Your task to perform on an android device: Play the new Taylor Swift video on YouTube Image 0: 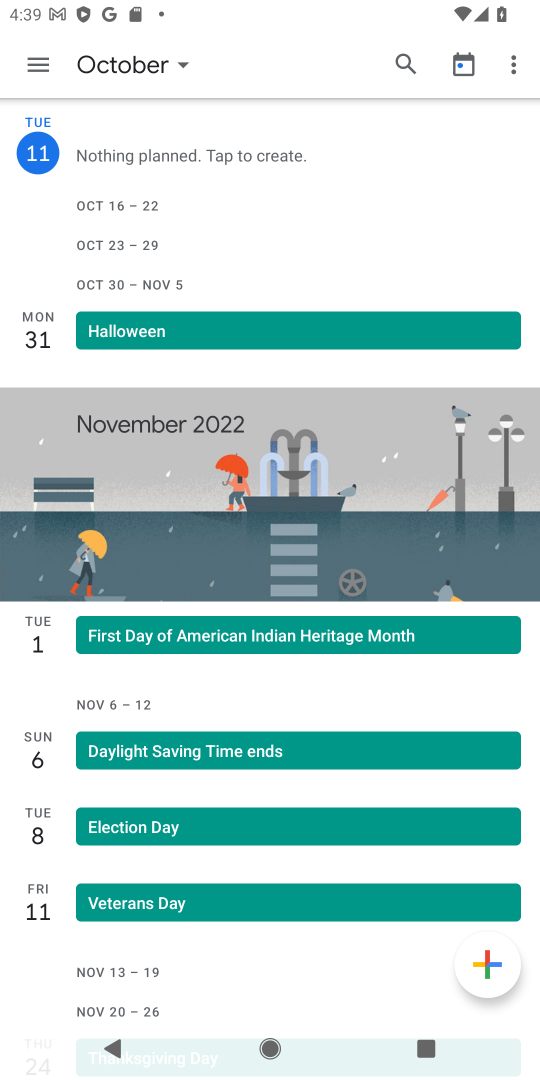
Step 0: press home button
Your task to perform on an android device: Play the new Taylor Swift video on YouTube Image 1: 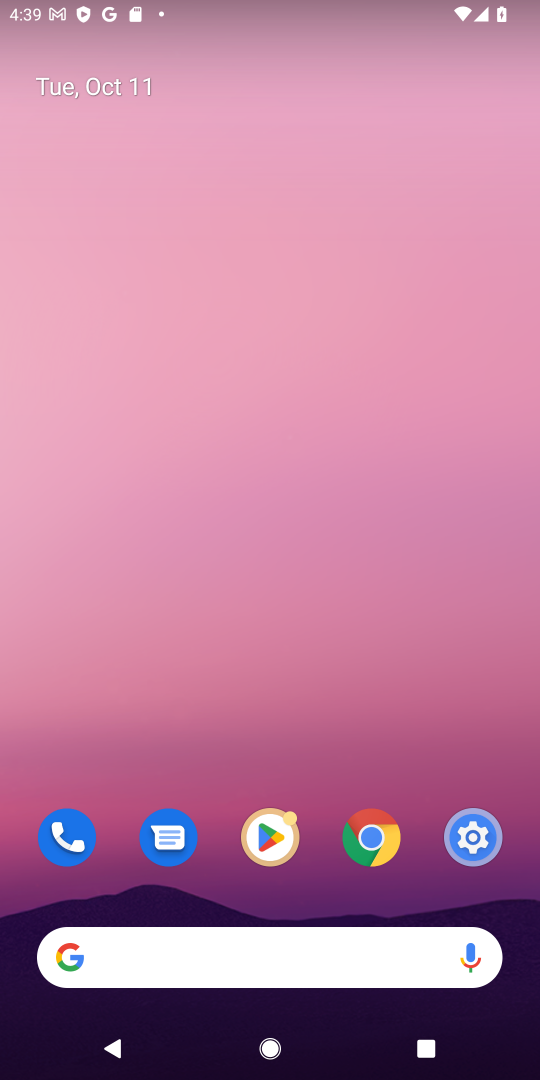
Step 1: drag from (249, 701) to (394, 72)
Your task to perform on an android device: Play the new Taylor Swift video on YouTube Image 2: 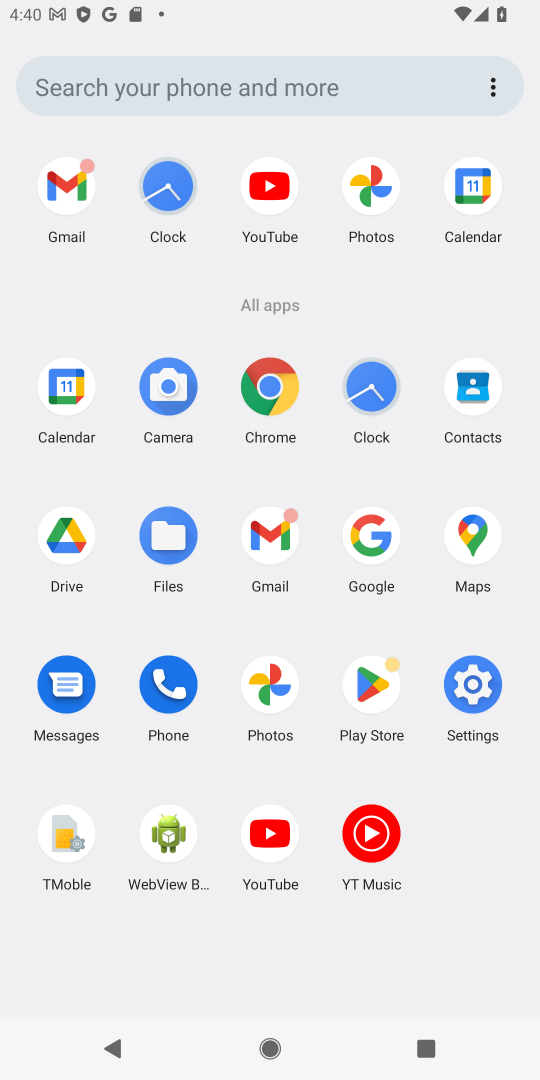
Step 2: click (353, 691)
Your task to perform on an android device: Play the new Taylor Swift video on YouTube Image 3: 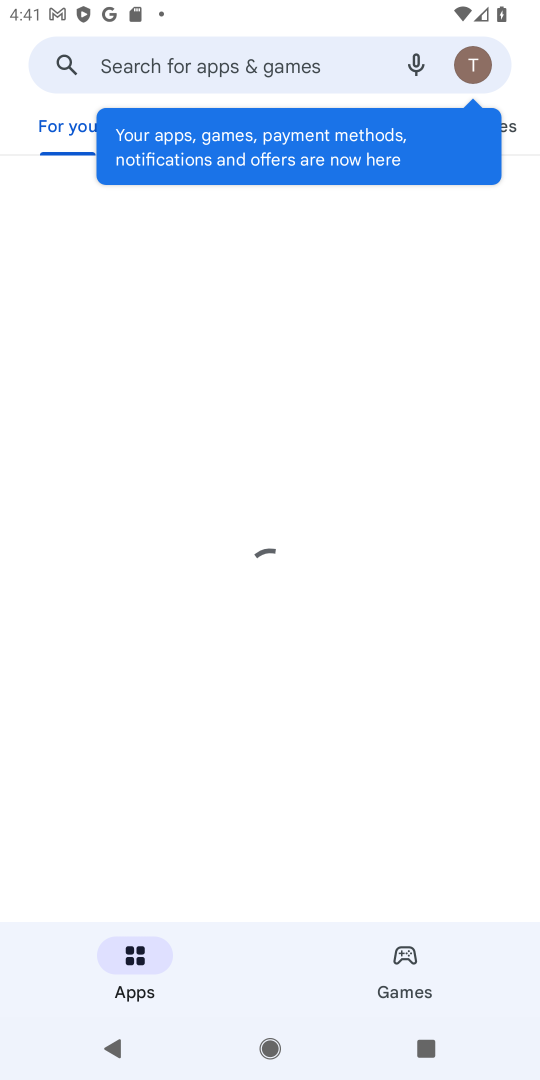
Step 3: press home button
Your task to perform on an android device: Play the new Taylor Swift video on YouTube Image 4: 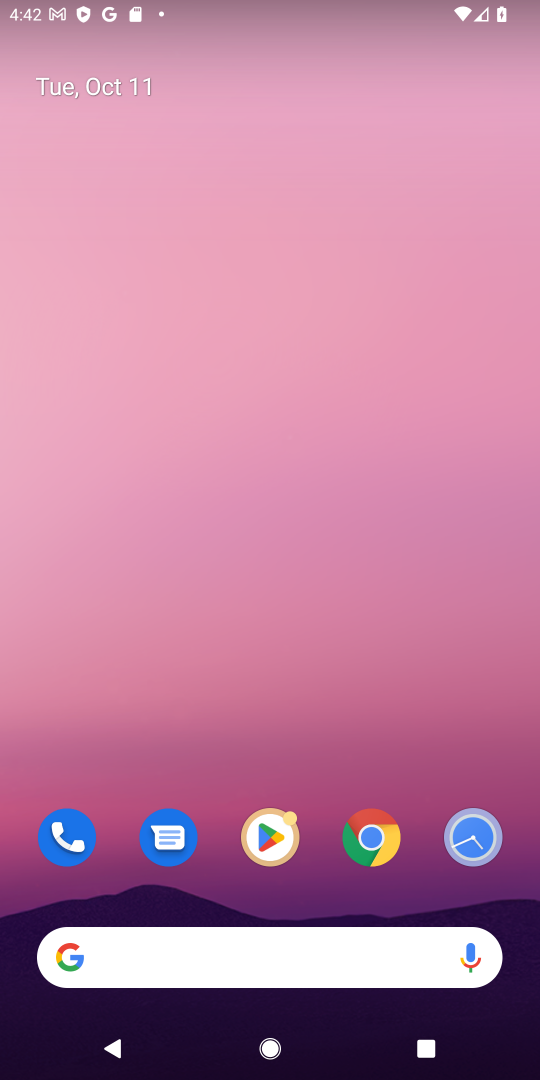
Step 4: drag from (258, 760) to (373, 21)
Your task to perform on an android device: Play the new Taylor Swift video on YouTube Image 5: 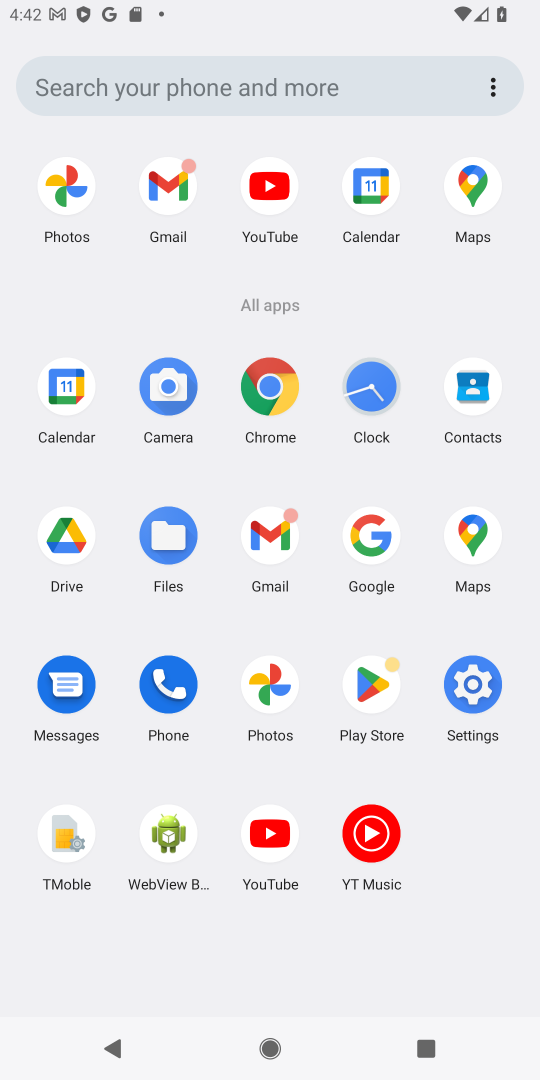
Step 5: click (289, 200)
Your task to perform on an android device: Play the new Taylor Swift video on YouTube Image 6: 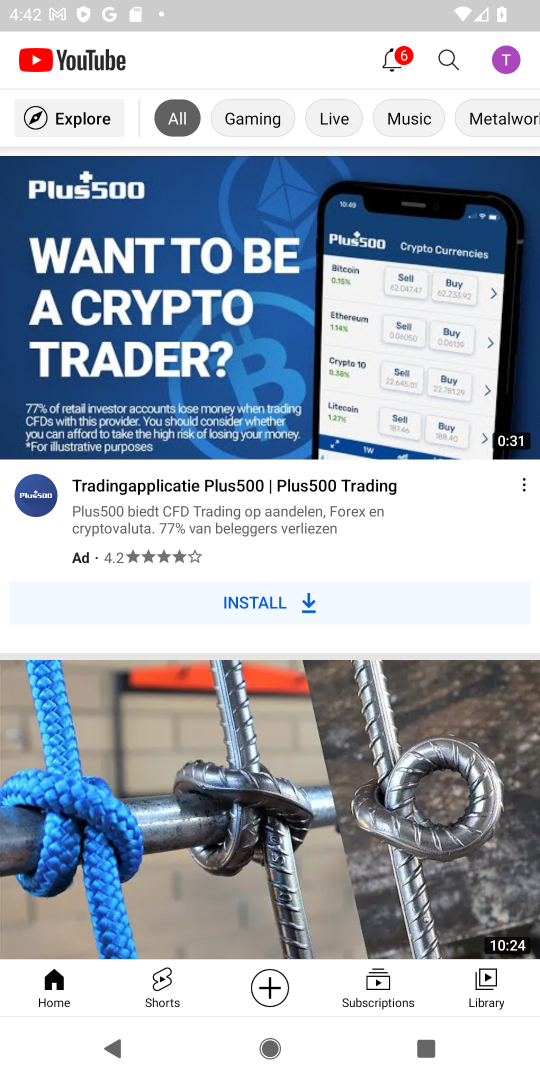
Step 6: click (447, 54)
Your task to perform on an android device: Play the new Taylor Swift video on YouTube Image 7: 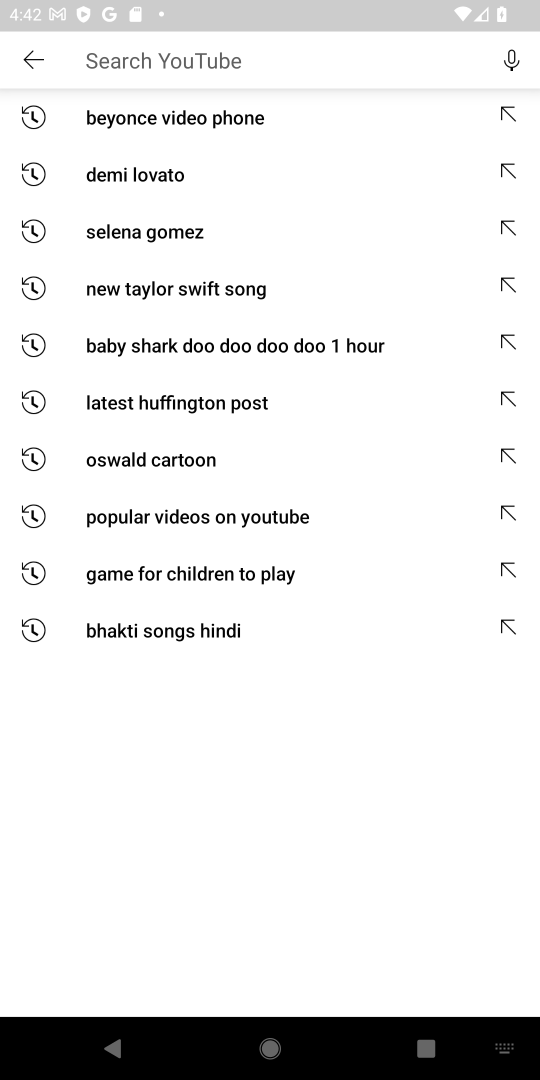
Step 7: drag from (323, 1053) to (520, 629)
Your task to perform on an android device: Play the new Taylor Swift video on YouTube Image 8: 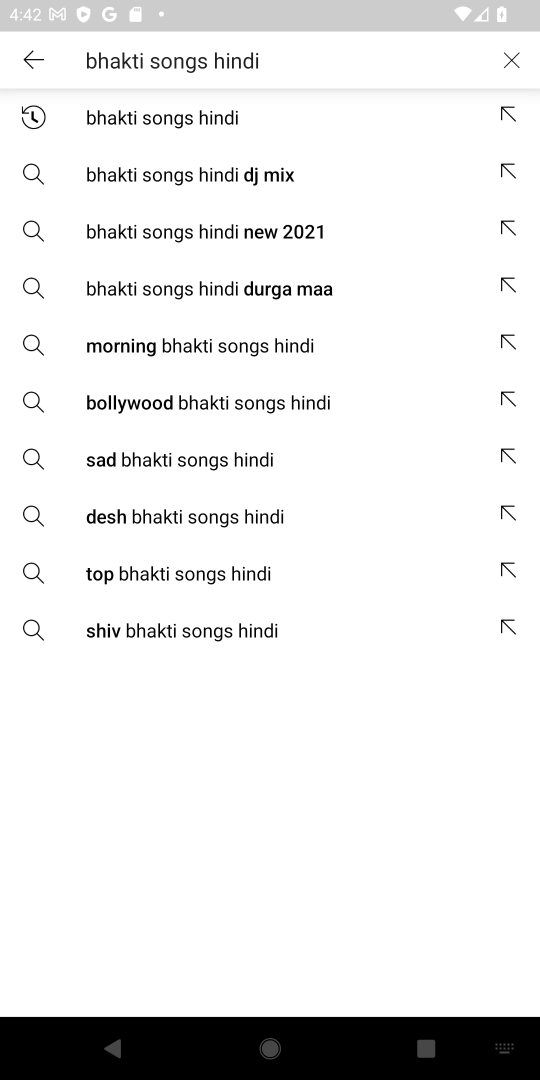
Step 8: type "new Taylor Swift video on YouTube"
Your task to perform on an android device: Play the new Taylor Swift video on YouTube Image 9: 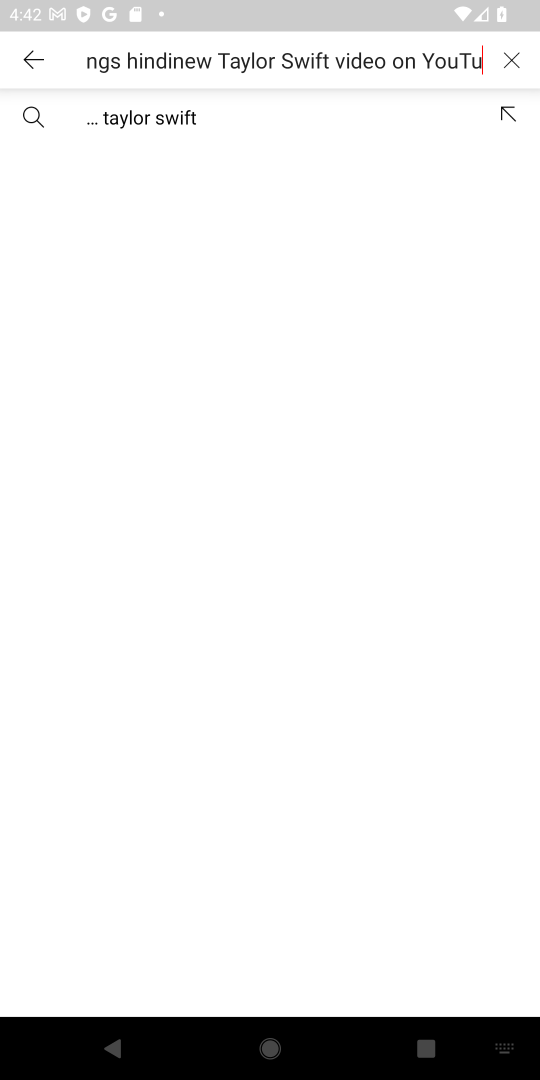
Step 9: press enter
Your task to perform on an android device: Play the new Taylor Swift video on YouTube Image 10: 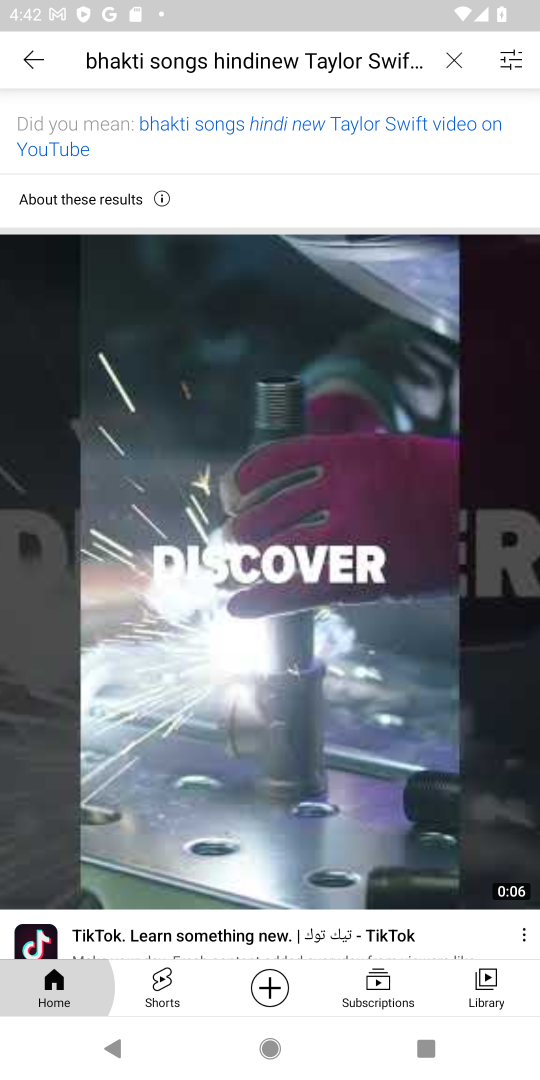
Step 10: click (258, 617)
Your task to perform on an android device: Play the new Taylor Swift video on YouTube Image 11: 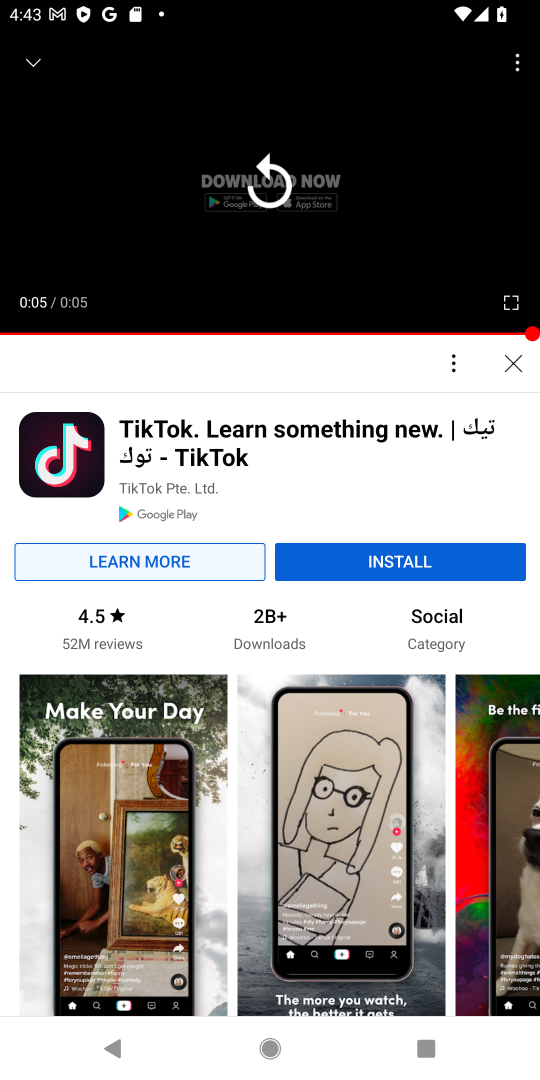
Step 11: task complete